Your task to perform on an android device: turn off data saver in the chrome app Image 0: 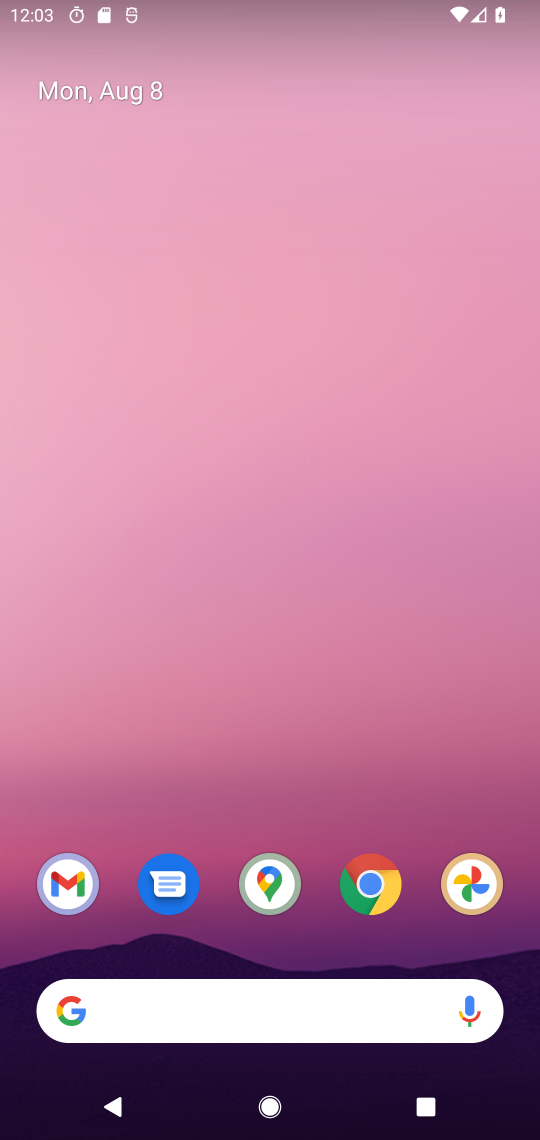
Step 0: click (370, 889)
Your task to perform on an android device: turn off data saver in the chrome app Image 1: 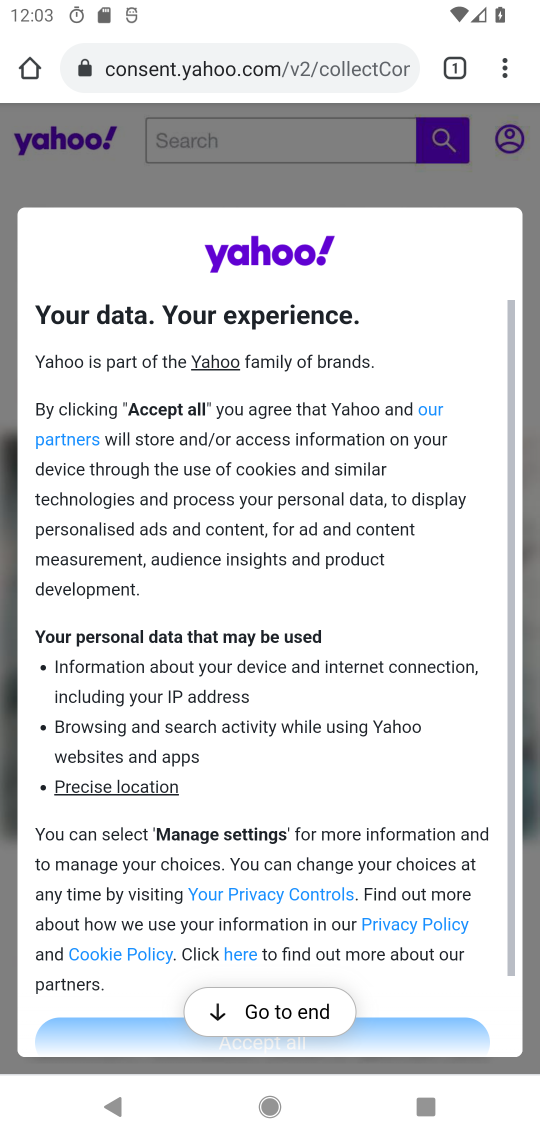
Step 1: click (506, 67)
Your task to perform on an android device: turn off data saver in the chrome app Image 2: 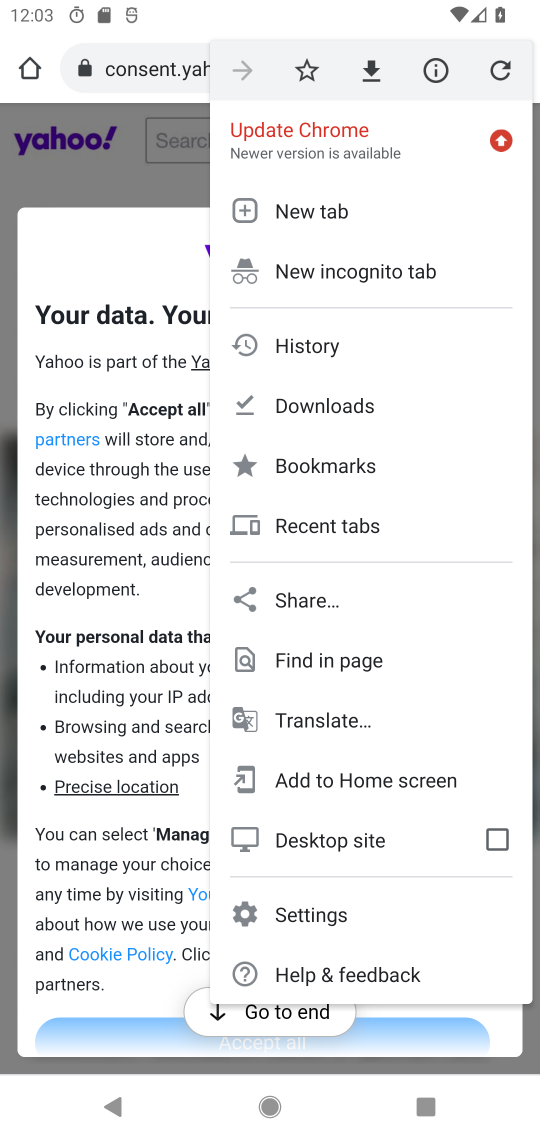
Step 2: click (296, 918)
Your task to perform on an android device: turn off data saver in the chrome app Image 3: 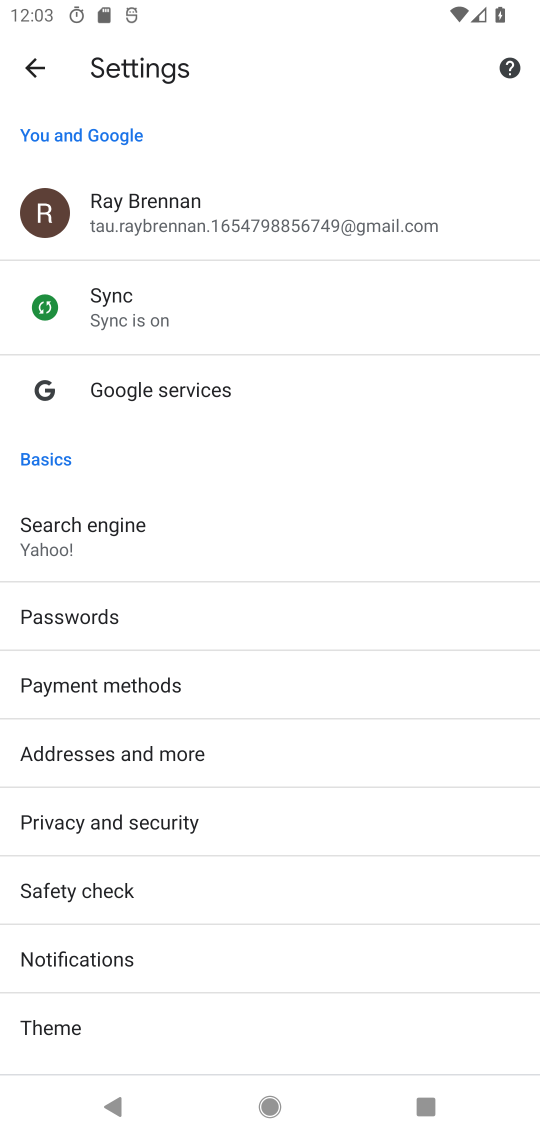
Step 3: drag from (203, 655) to (196, 463)
Your task to perform on an android device: turn off data saver in the chrome app Image 4: 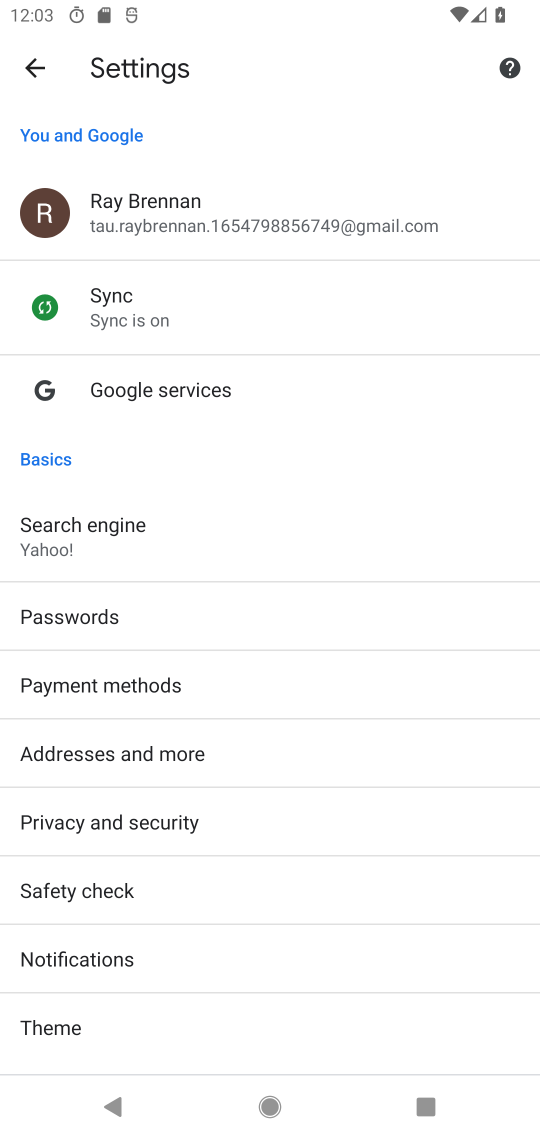
Step 4: drag from (197, 976) to (187, 30)
Your task to perform on an android device: turn off data saver in the chrome app Image 5: 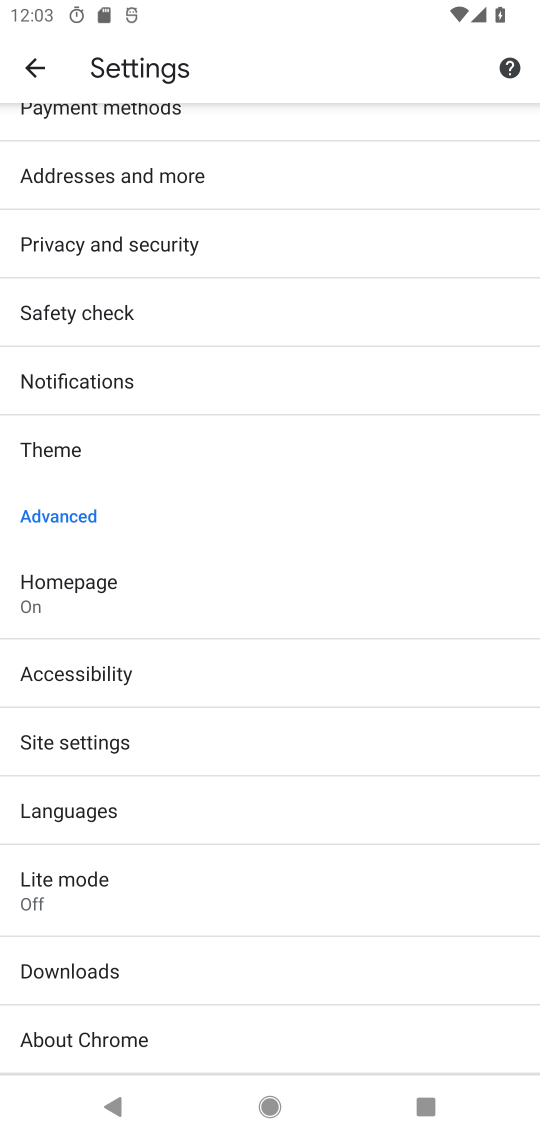
Step 5: click (92, 1039)
Your task to perform on an android device: turn off data saver in the chrome app Image 6: 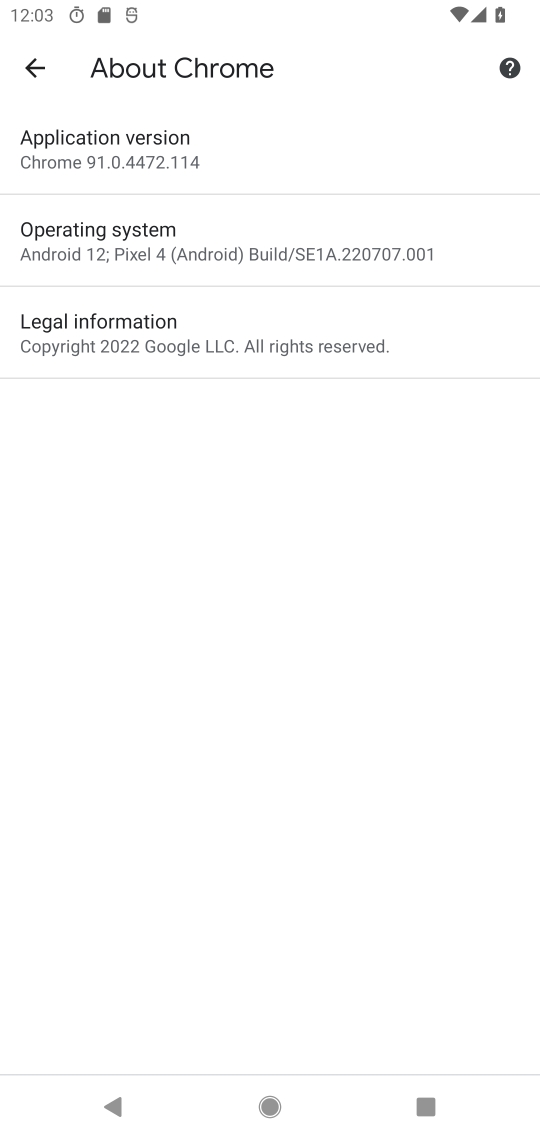
Step 6: click (27, 61)
Your task to perform on an android device: turn off data saver in the chrome app Image 7: 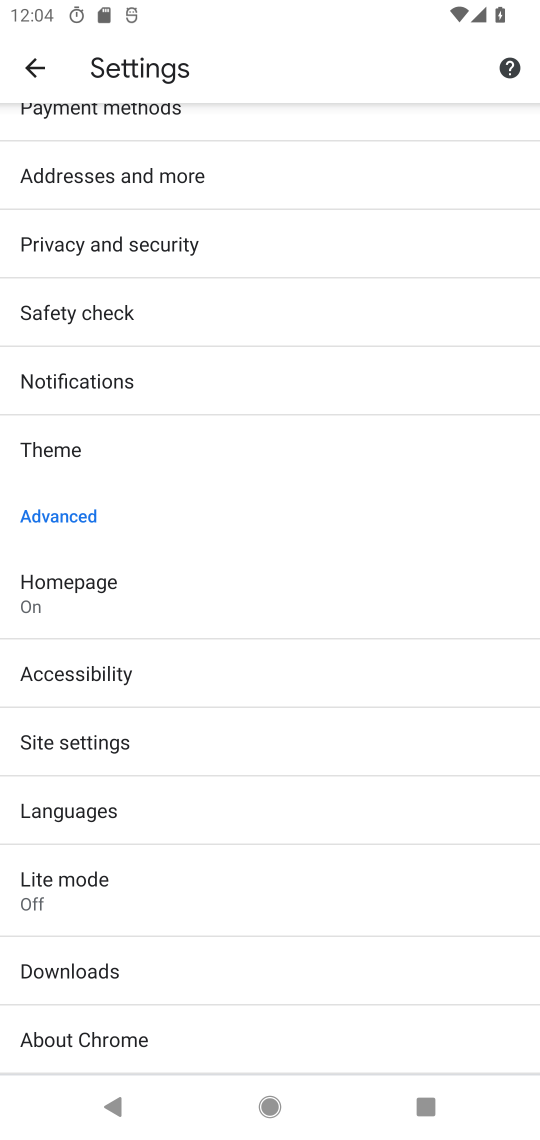
Step 7: click (84, 875)
Your task to perform on an android device: turn off data saver in the chrome app Image 8: 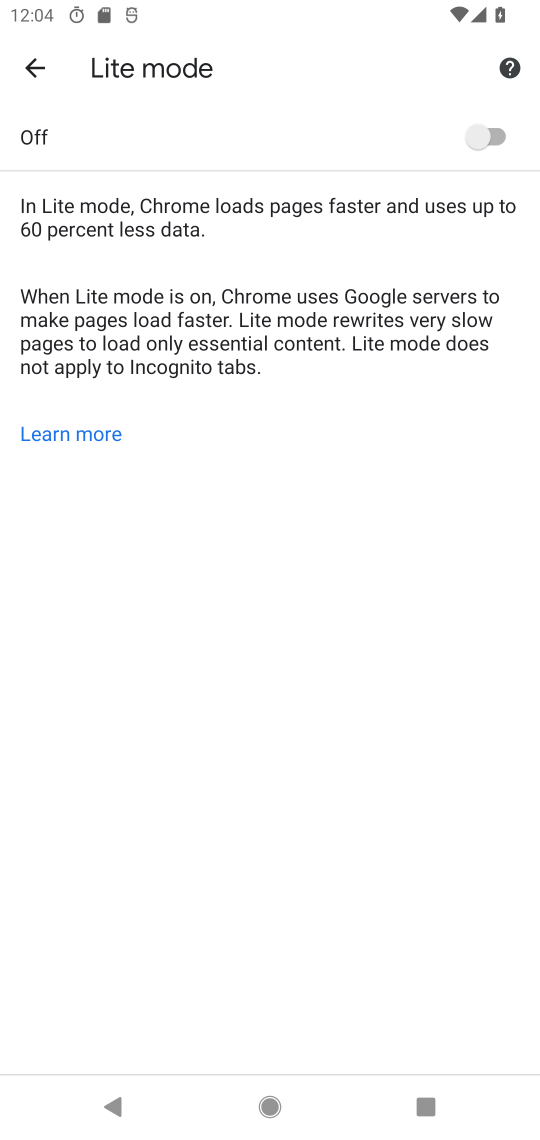
Step 8: task complete